Your task to perform on an android device: stop showing notifications on the lock screen Image 0: 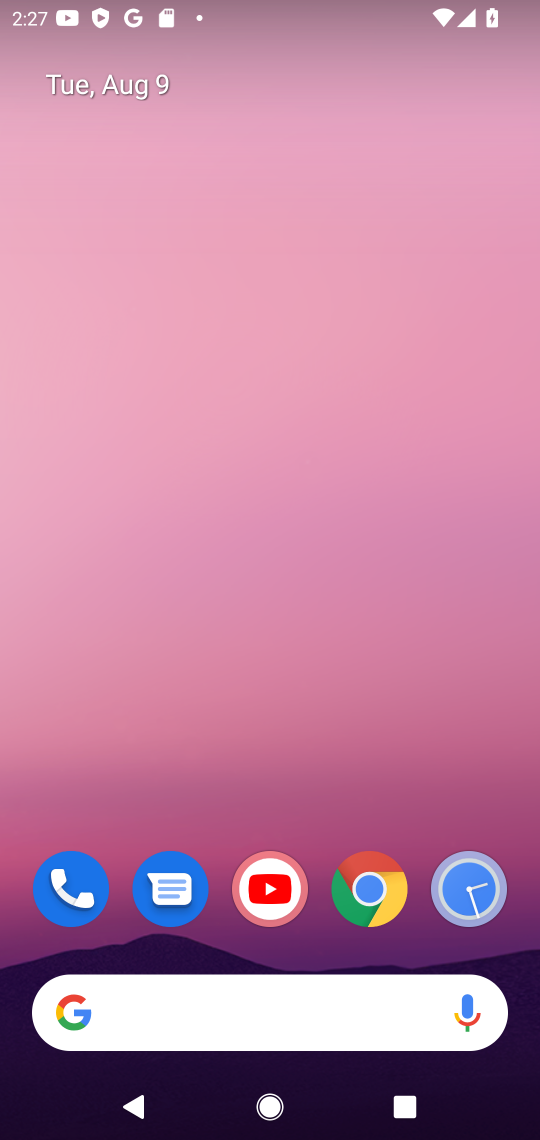
Step 0: drag from (256, 753) to (283, 0)
Your task to perform on an android device: stop showing notifications on the lock screen Image 1: 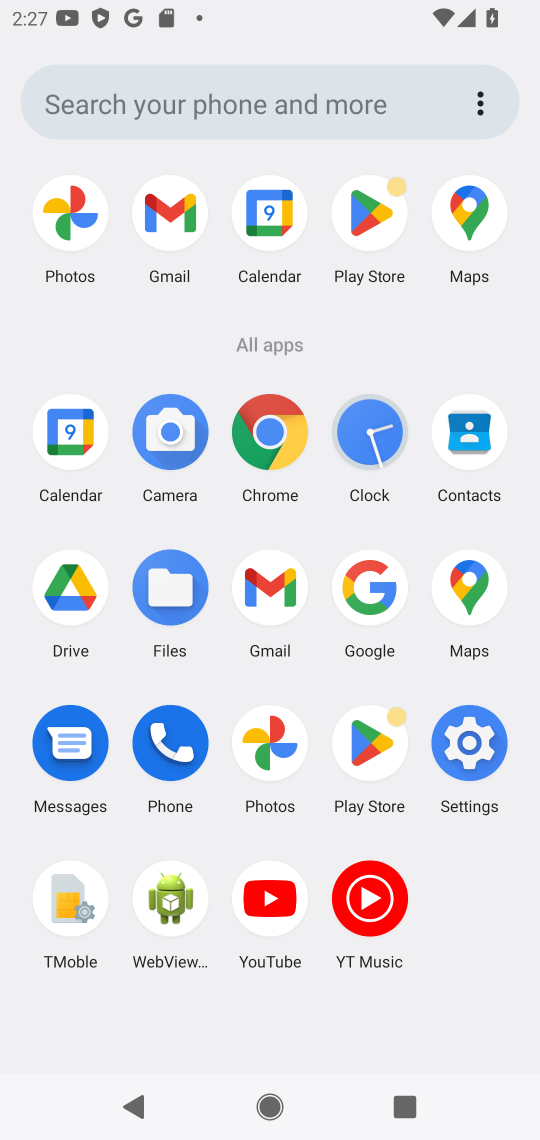
Step 1: click (463, 741)
Your task to perform on an android device: stop showing notifications on the lock screen Image 2: 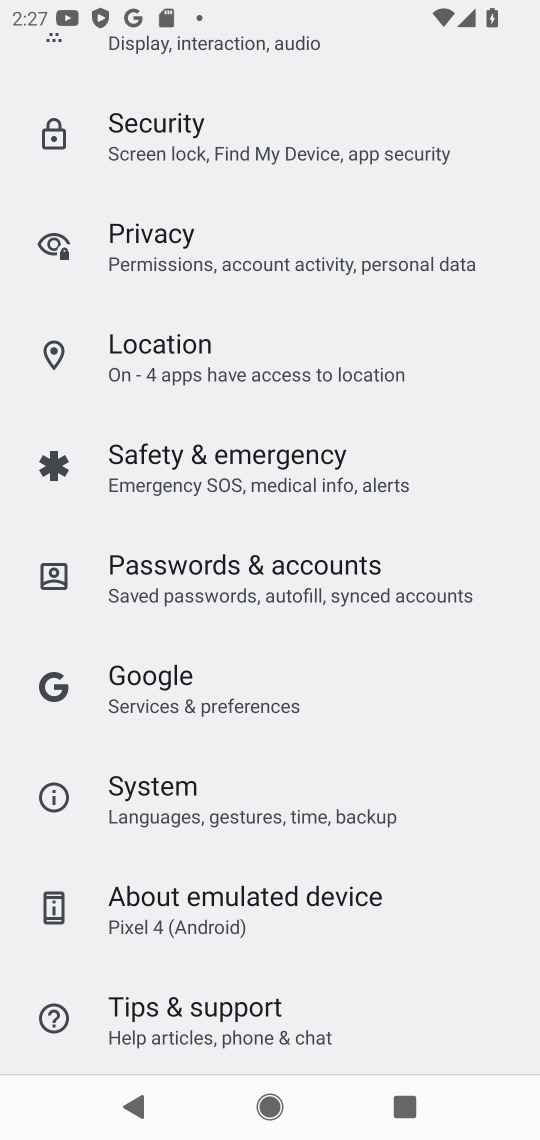
Step 2: drag from (290, 202) to (259, 1104)
Your task to perform on an android device: stop showing notifications on the lock screen Image 3: 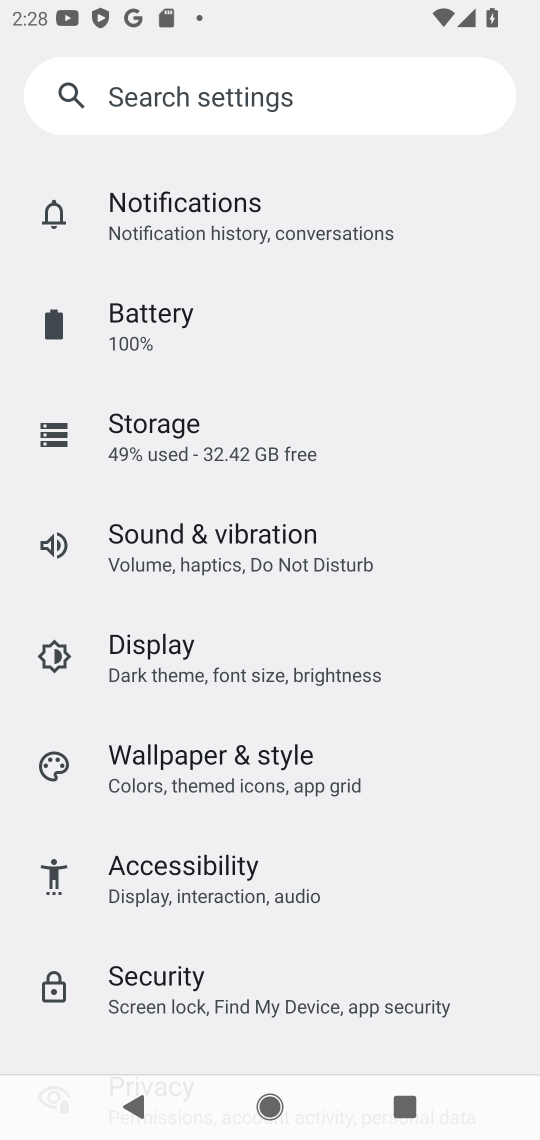
Step 3: click (310, 219)
Your task to perform on an android device: stop showing notifications on the lock screen Image 4: 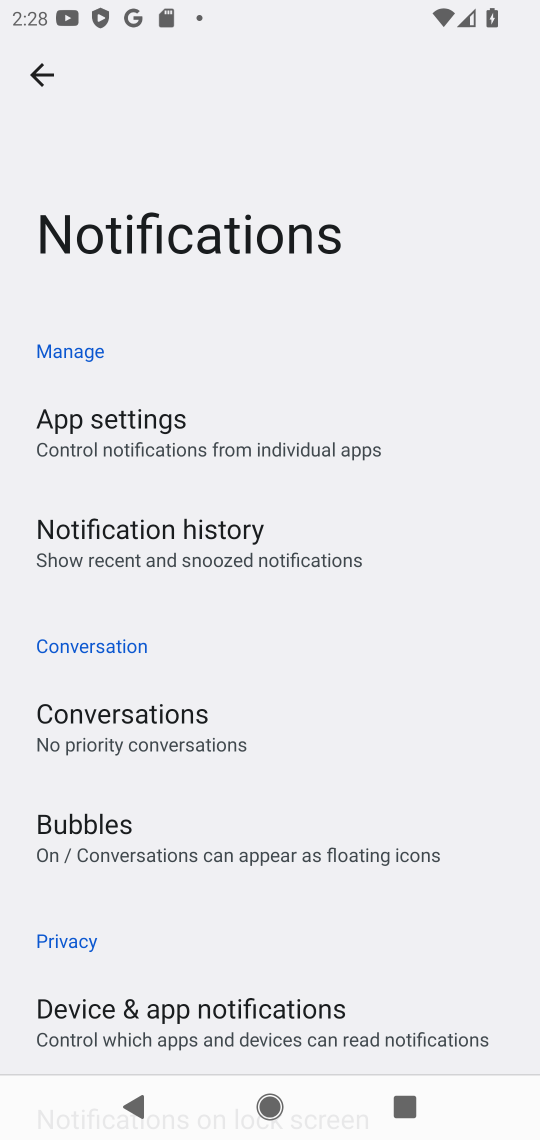
Step 4: drag from (309, 693) to (348, 104)
Your task to perform on an android device: stop showing notifications on the lock screen Image 5: 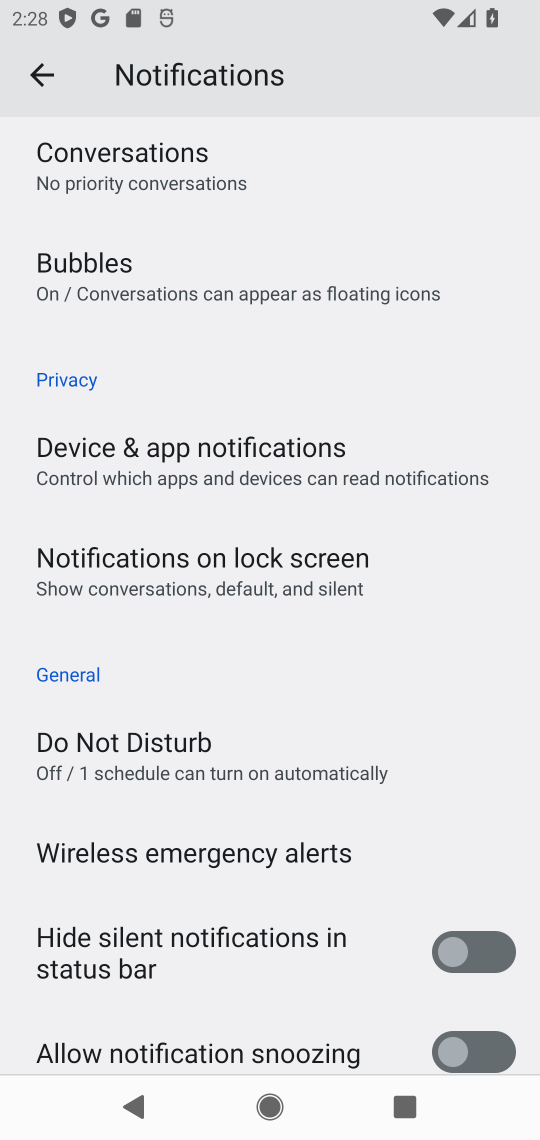
Step 5: click (279, 577)
Your task to perform on an android device: stop showing notifications on the lock screen Image 6: 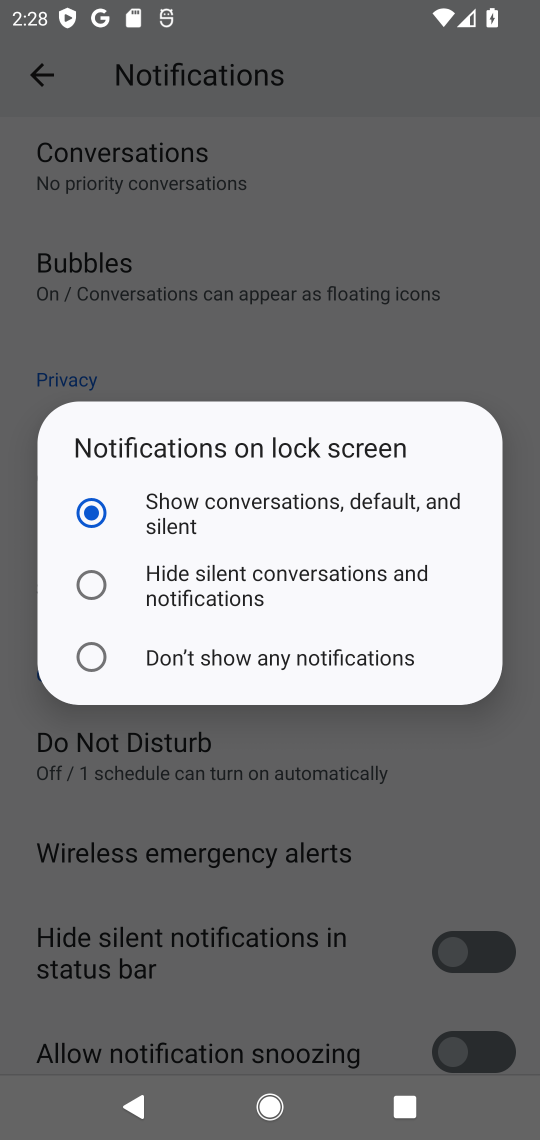
Step 6: click (91, 657)
Your task to perform on an android device: stop showing notifications on the lock screen Image 7: 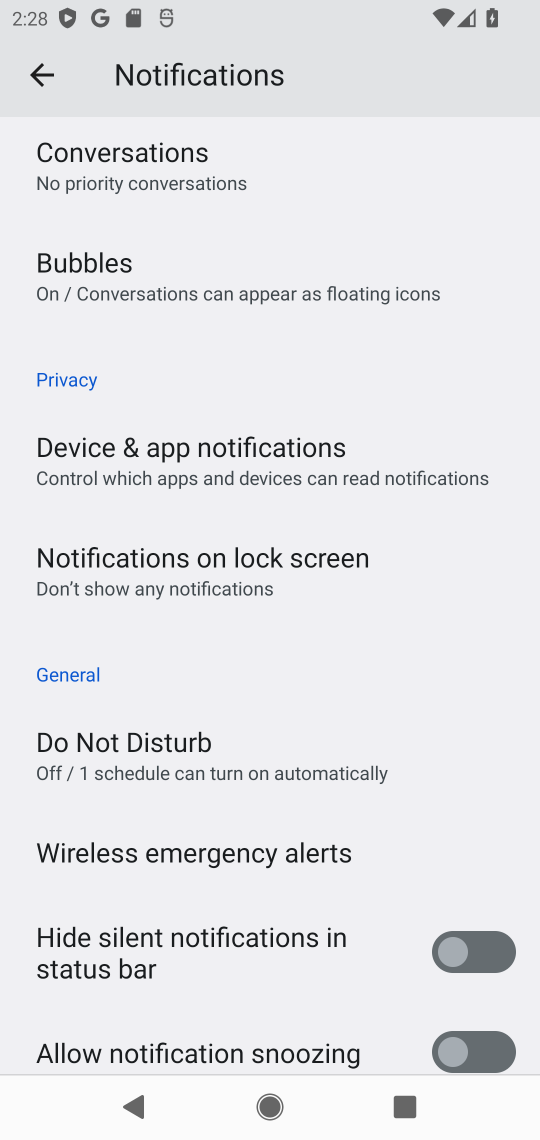
Step 7: task complete